Your task to perform on an android device: toggle notifications settings in the gmail app Image 0: 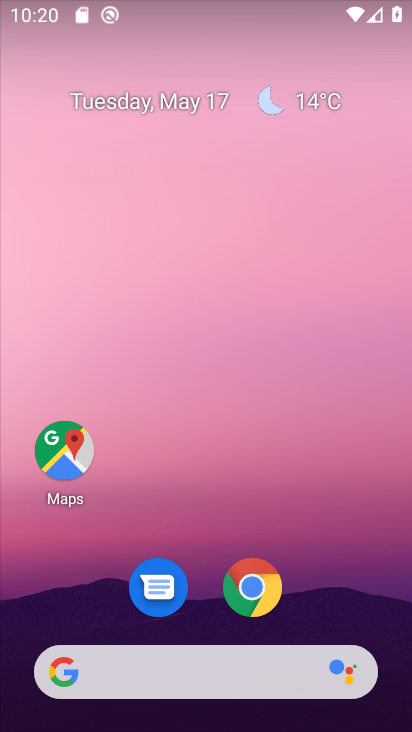
Step 0: drag from (398, 646) to (261, 192)
Your task to perform on an android device: toggle notifications settings in the gmail app Image 1: 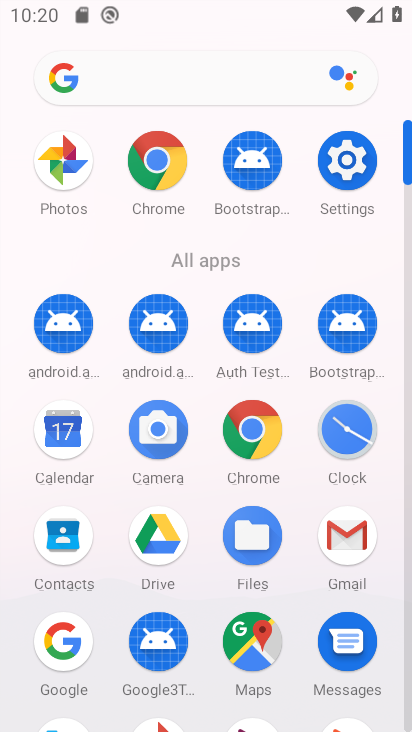
Step 1: click (341, 517)
Your task to perform on an android device: toggle notifications settings in the gmail app Image 2: 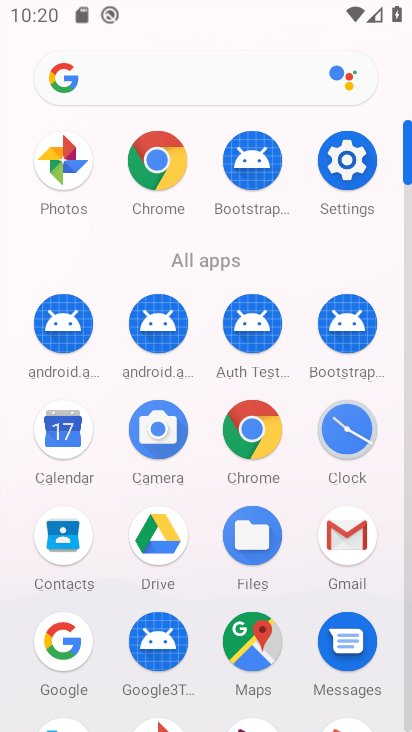
Step 2: click (342, 517)
Your task to perform on an android device: toggle notifications settings in the gmail app Image 3: 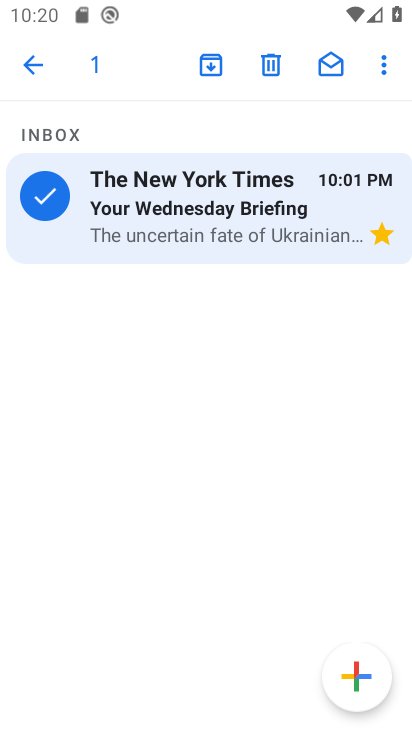
Step 3: click (29, 61)
Your task to perform on an android device: toggle notifications settings in the gmail app Image 4: 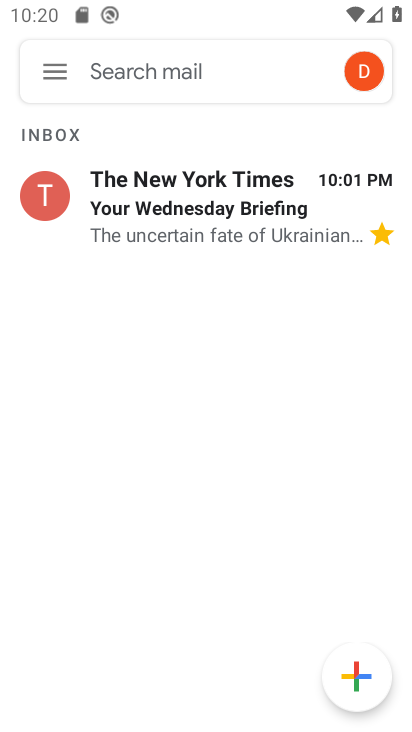
Step 4: click (51, 71)
Your task to perform on an android device: toggle notifications settings in the gmail app Image 5: 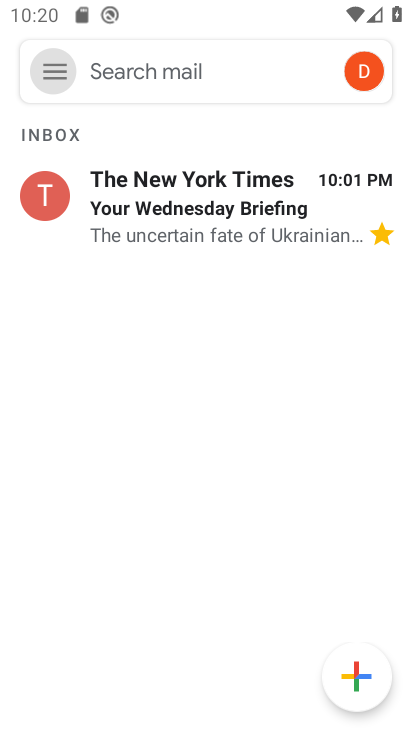
Step 5: click (51, 71)
Your task to perform on an android device: toggle notifications settings in the gmail app Image 6: 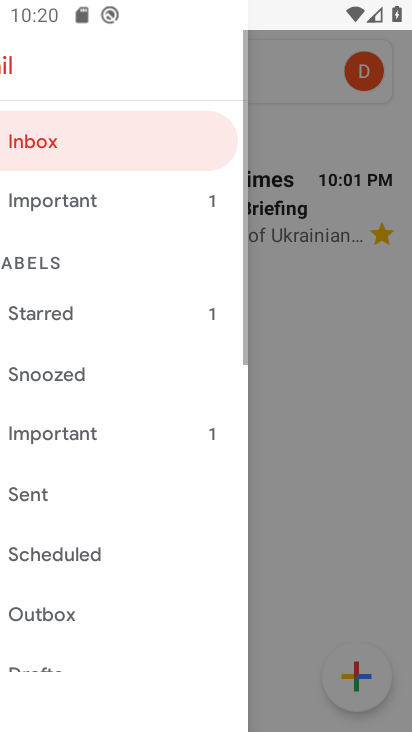
Step 6: click (55, 73)
Your task to perform on an android device: toggle notifications settings in the gmail app Image 7: 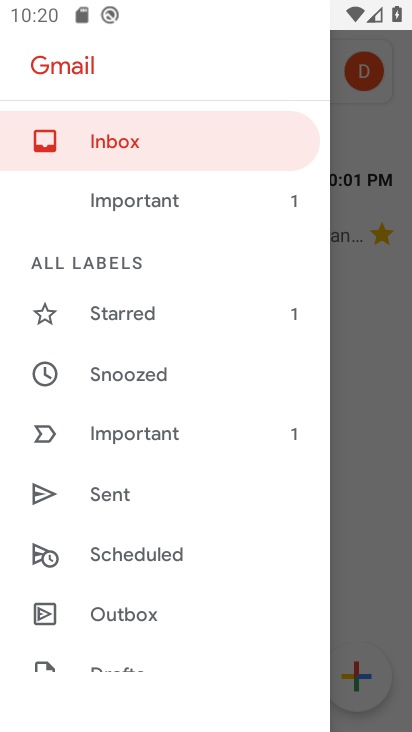
Step 7: drag from (176, 570) to (146, 61)
Your task to perform on an android device: toggle notifications settings in the gmail app Image 8: 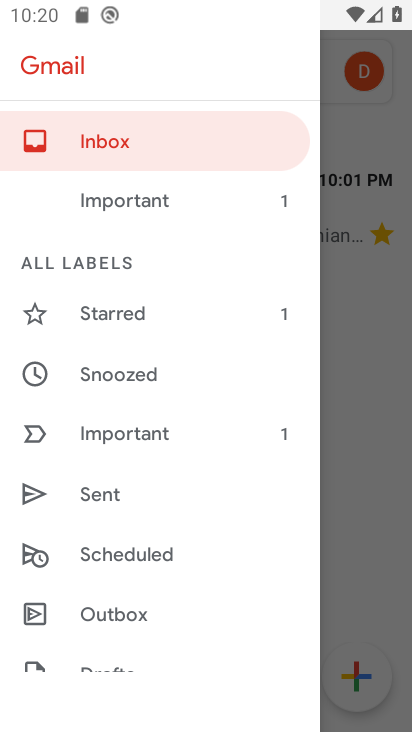
Step 8: drag from (175, 477) to (168, 82)
Your task to perform on an android device: toggle notifications settings in the gmail app Image 9: 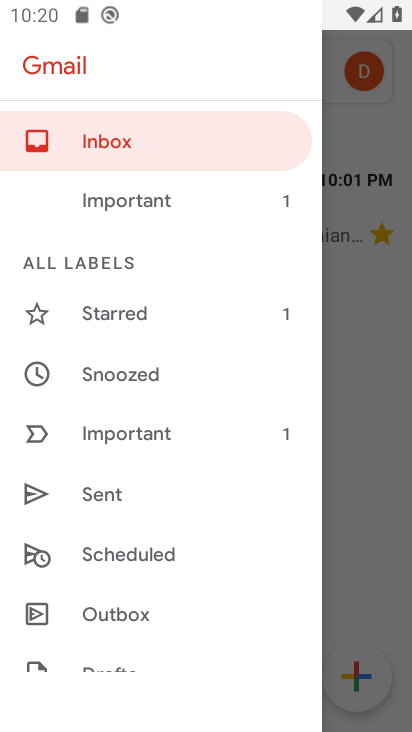
Step 9: drag from (179, 414) to (202, 68)
Your task to perform on an android device: toggle notifications settings in the gmail app Image 10: 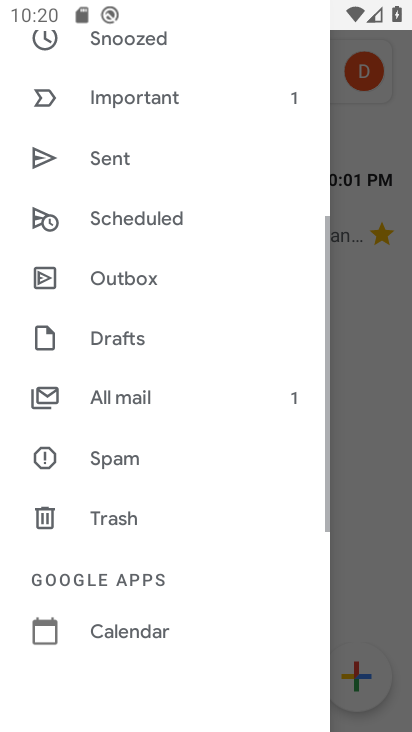
Step 10: drag from (161, 466) to (205, 0)
Your task to perform on an android device: toggle notifications settings in the gmail app Image 11: 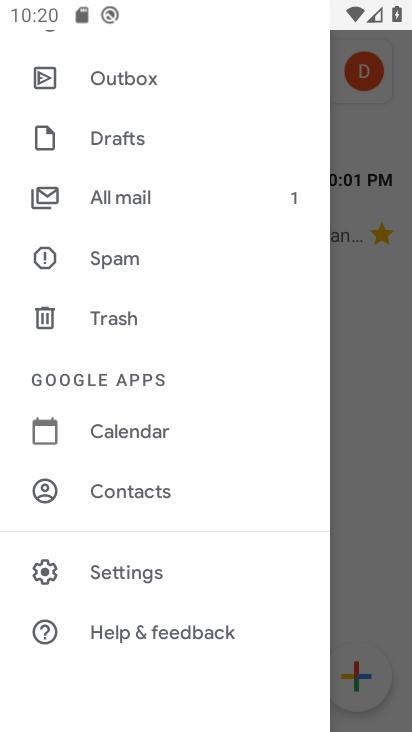
Step 11: click (130, 573)
Your task to perform on an android device: toggle notifications settings in the gmail app Image 12: 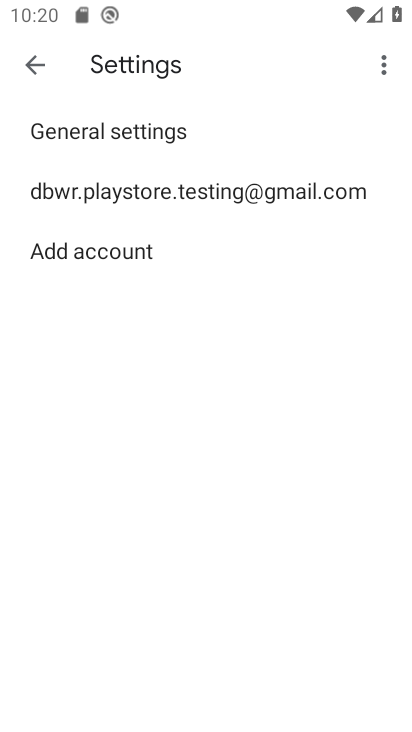
Step 12: click (120, 203)
Your task to perform on an android device: toggle notifications settings in the gmail app Image 13: 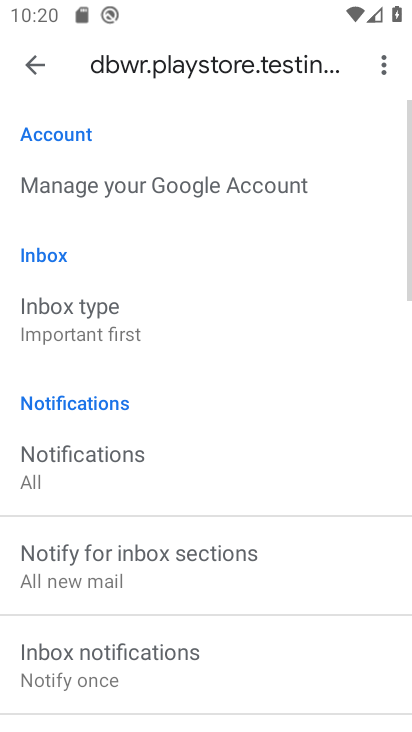
Step 13: click (54, 449)
Your task to perform on an android device: toggle notifications settings in the gmail app Image 14: 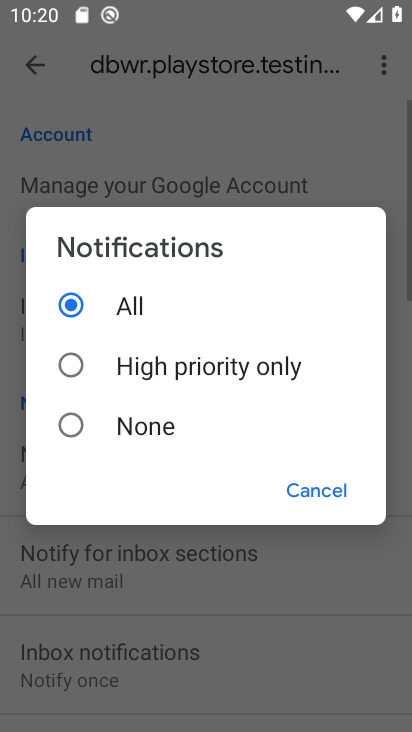
Step 14: click (60, 359)
Your task to perform on an android device: toggle notifications settings in the gmail app Image 15: 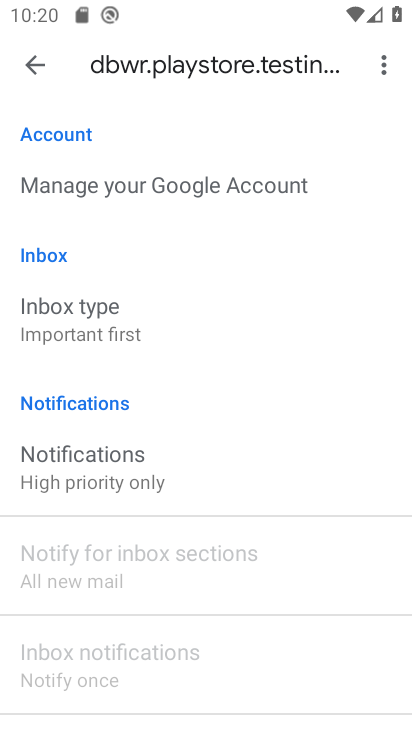
Step 15: task complete